Your task to perform on an android device: Open CNN.com Image 0: 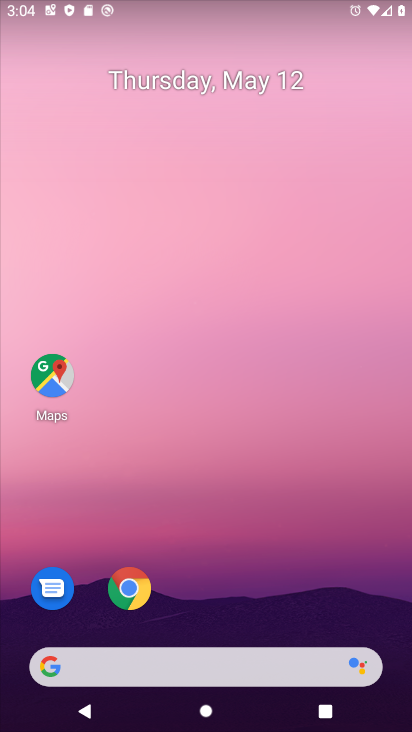
Step 0: drag from (282, 517) to (214, 12)
Your task to perform on an android device: Open CNN.com Image 1: 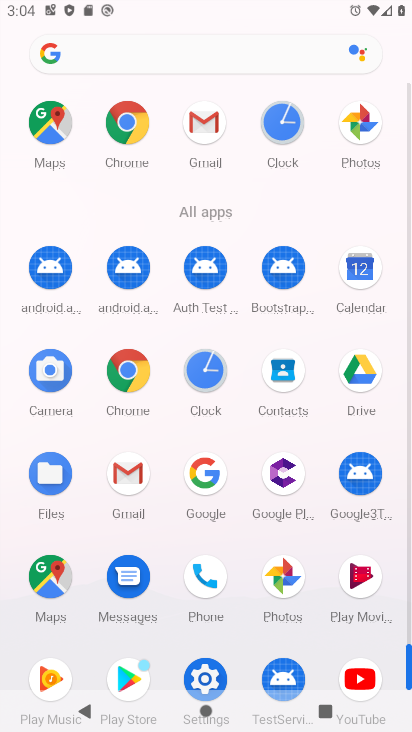
Step 1: drag from (1, 502) to (14, 293)
Your task to perform on an android device: Open CNN.com Image 2: 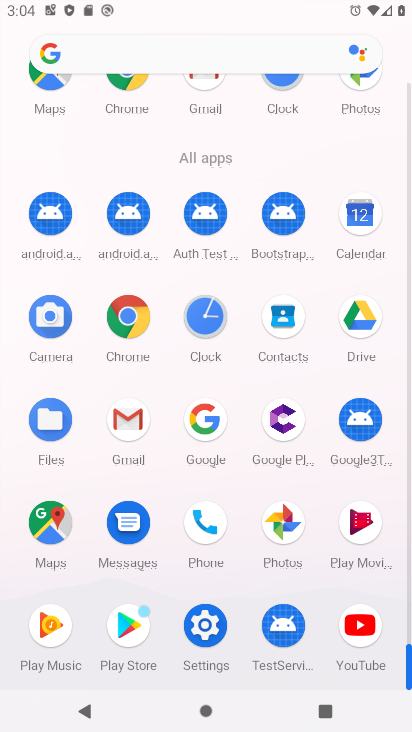
Step 2: drag from (20, 546) to (18, 261)
Your task to perform on an android device: Open CNN.com Image 3: 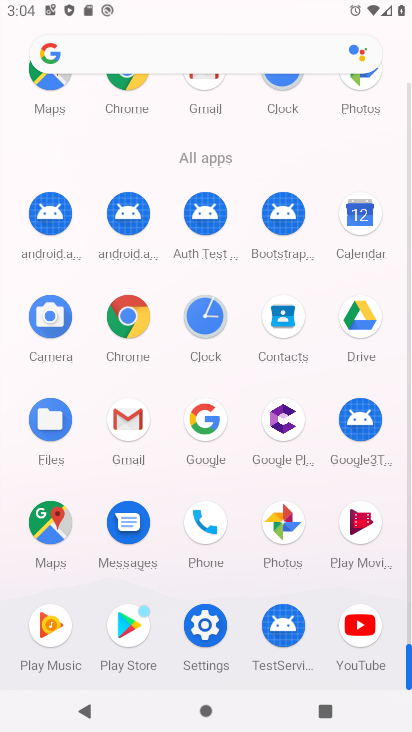
Step 3: click (126, 309)
Your task to perform on an android device: Open CNN.com Image 4: 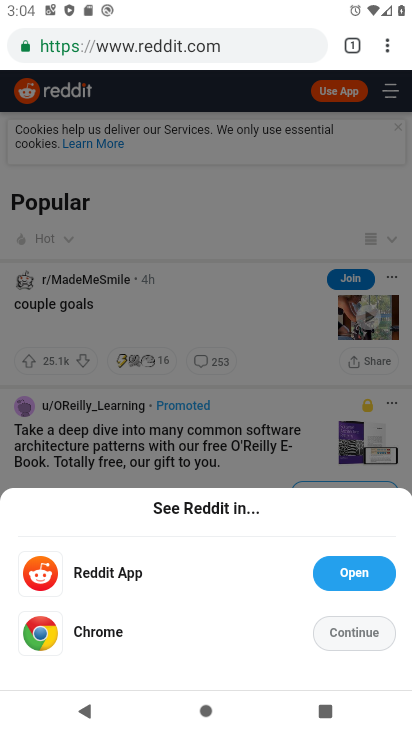
Step 4: click (133, 37)
Your task to perform on an android device: Open CNN.com Image 5: 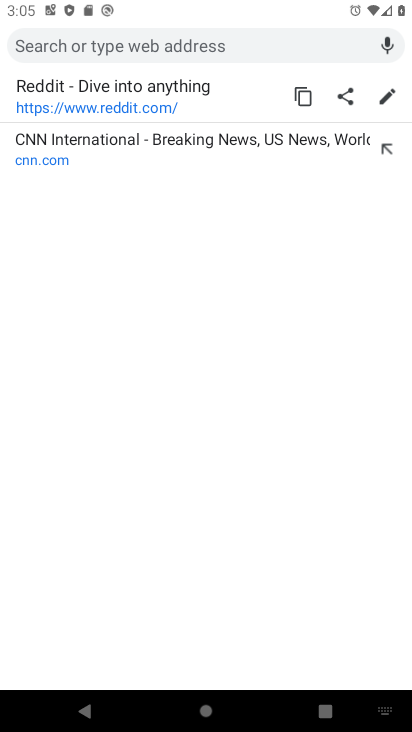
Step 5: type "CNN.com"
Your task to perform on an android device: Open CNN.com Image 6: 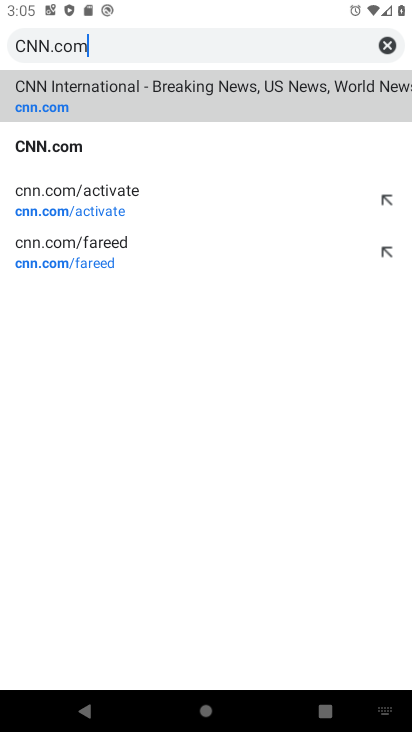
Step 6: click (114, 109)
Your task to perform on an android device: Open CNN.com Image 7: 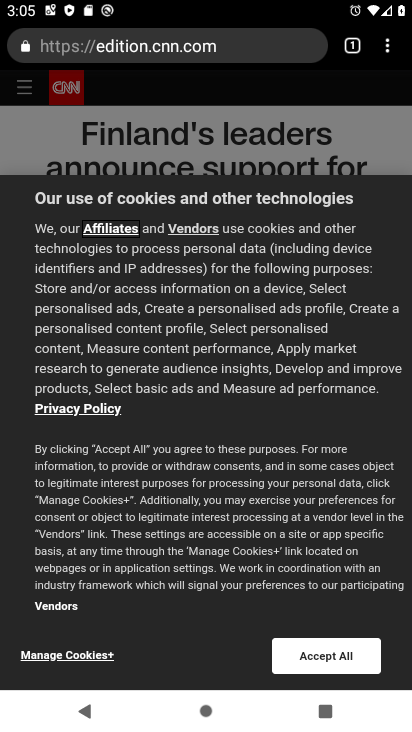
Step 7: click (344, 650)
Your task to perform on an android device: Open CNN.com Image 8: 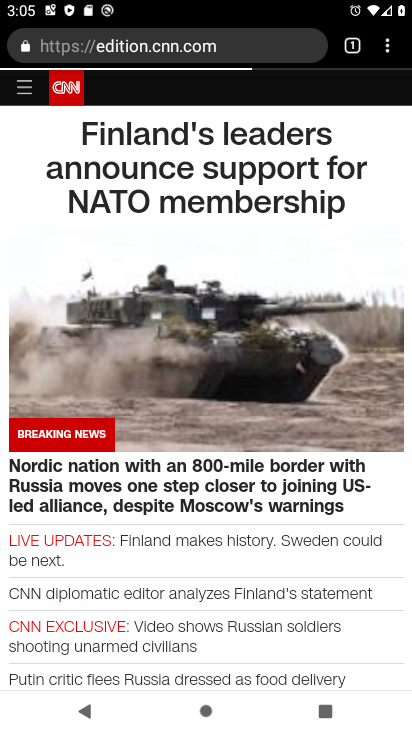
Step 8: task complete